Your task to perform on an android device: Toggle the flashlight Image 0: 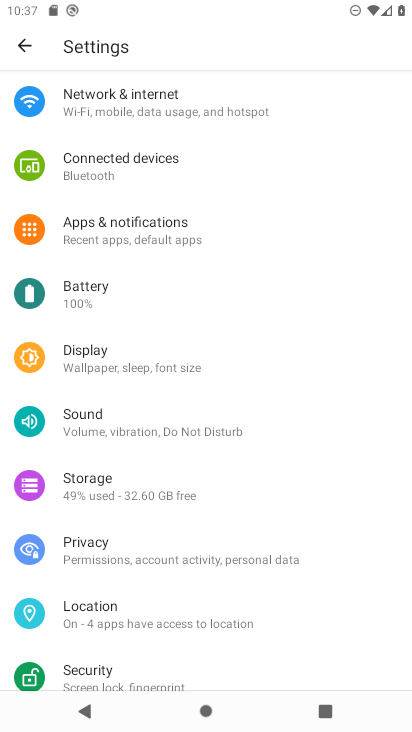
Step 0: drag from (165, 230) to (175, 484)
Your task to perform on an android device: Toggle the flashlight Image 1: 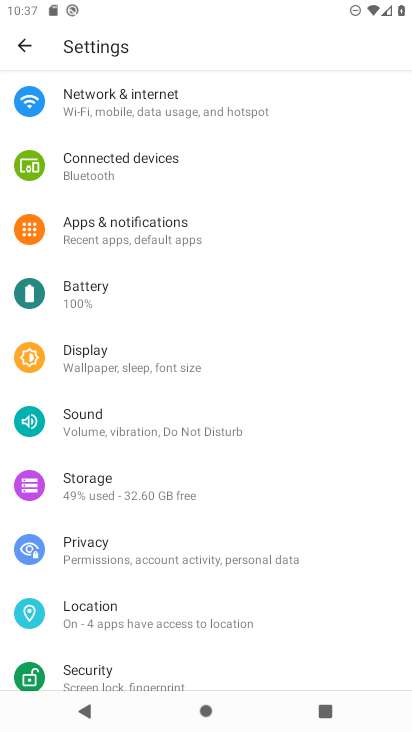
Step 1: click (115, 348)
Your task to perform on an android device: Toggle the flashlight Image 2: 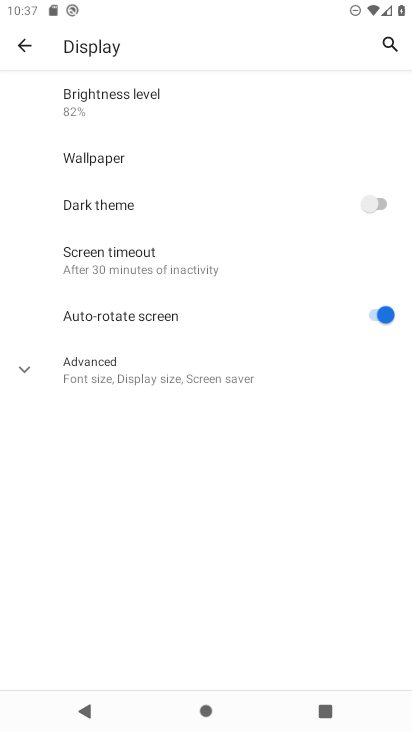
Step 2: task complete